Your task to perform on an android device: Open Youtube and go to "Your channel" Image 0: 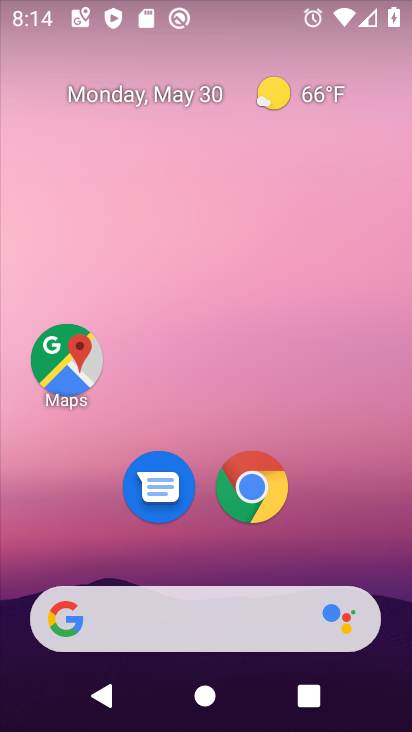
Step 0: press home button
Your task to perform on an android device: Open Youtube and go to "Your channel" Image 1: 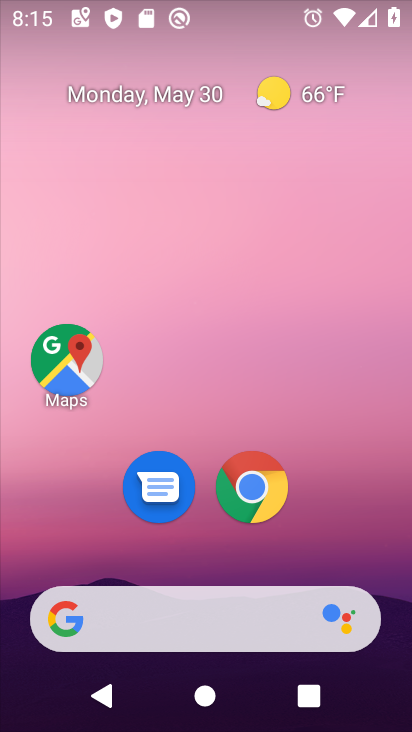
Step 1: drag from (352, 513) to (344, 103)
Your task to perform on an android device: Open Youtube and go to "Your channel" Image 2: 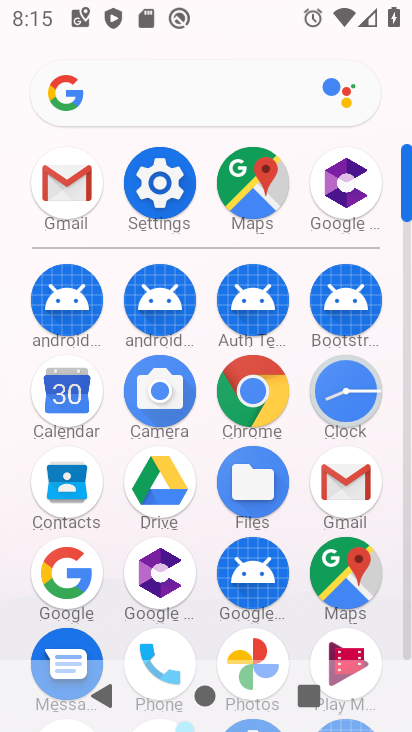
Step 2: drag from (382, 618) to (339, 184)
Your task to perform on an android device: Open Youtube and go to "Your channel" Image 3: 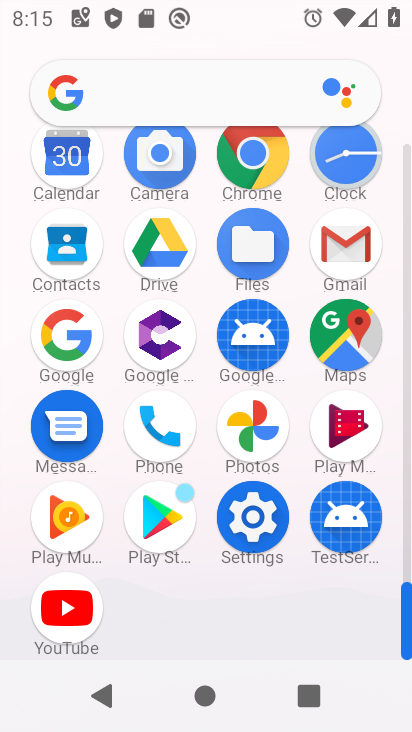
Step 3: click (49, 620)
Your task to perform on an android device: Open Youtube and go to "Your channel" Image 4: 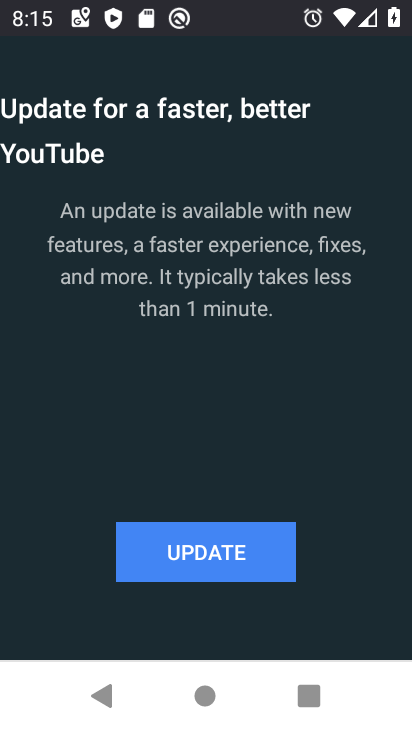
Step 4: click (170, 564)
Your task to perform on an android device: Open Youtube and go to "Your channel" Image 5: 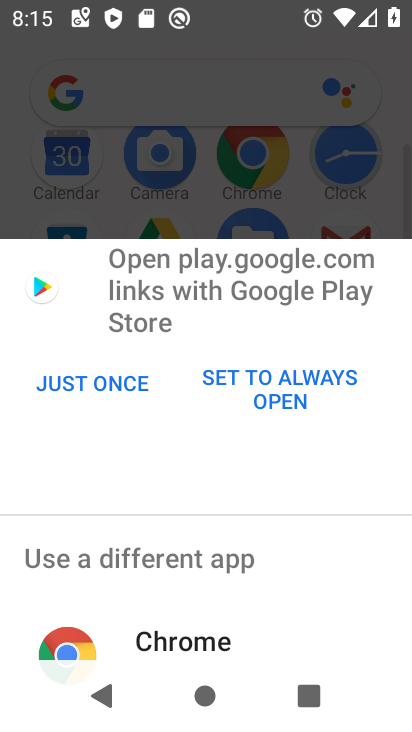
Step 5: drag from (342, 627) to (344, 280)
Your task to perform on an android device: Open Youtube and go to "Your channel" Image 6: 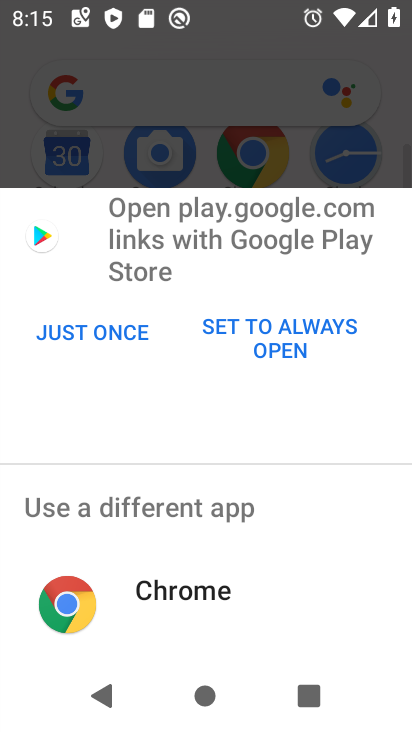
Step 6: click (103, 338)
Your task to perform on an android device: Open Youtube and go to "Your channel" Image 7: 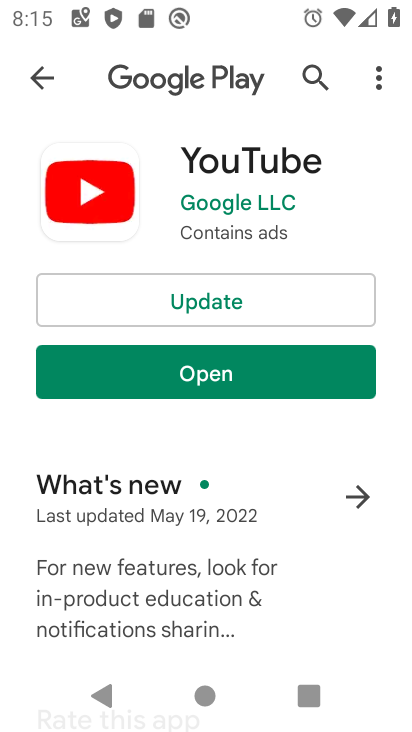
Step 7: click (122, 276)
Your task to perform on an android device: Open Youtube and go to "Your channel" Image 8: 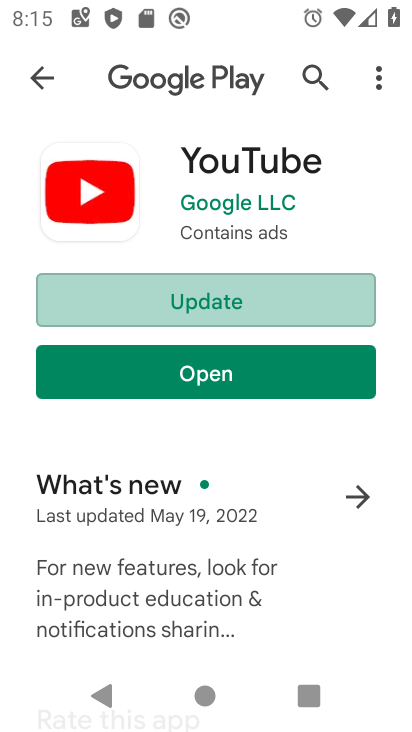
Step 8: click (127, 290)
Your task to perform on an android device: Open Youtube and go to "Your channel" Image 9: 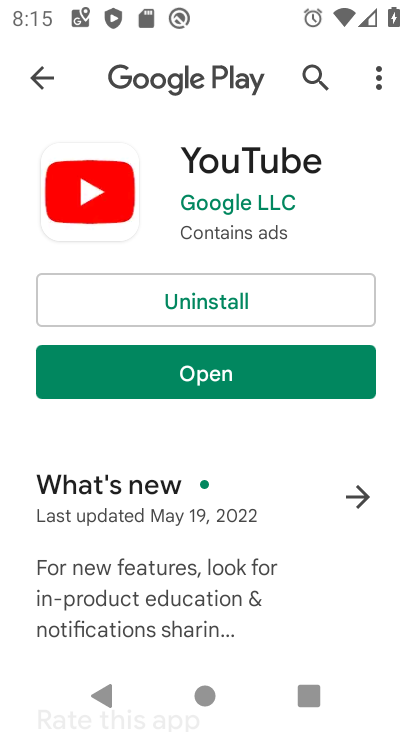
Step 9: click (87, 391)
Your task to perform on an android device: Open Youtube and go to "Your channel" Image 10: 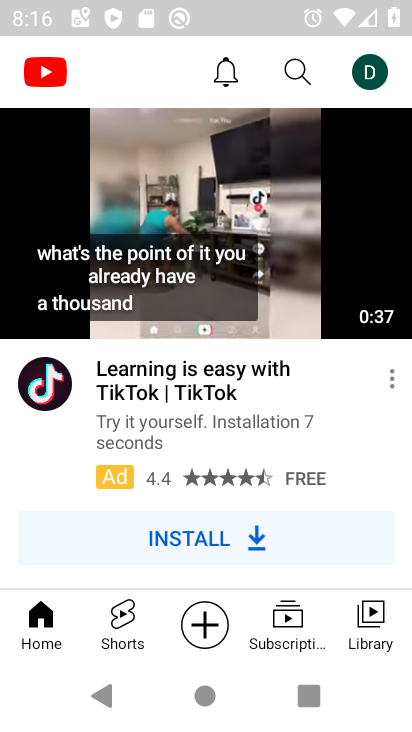
Step 10: click (381, 76)
Your task to perform on an android device: Open Youtube and go to "Your channel" Image 11: 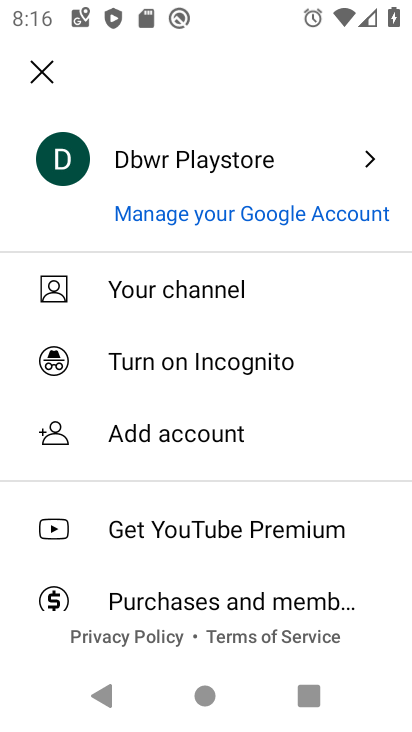
Step 11: click (177, 294)
Your task to perform on an android device: Open Youtube and go to "Your channel" Image 12: 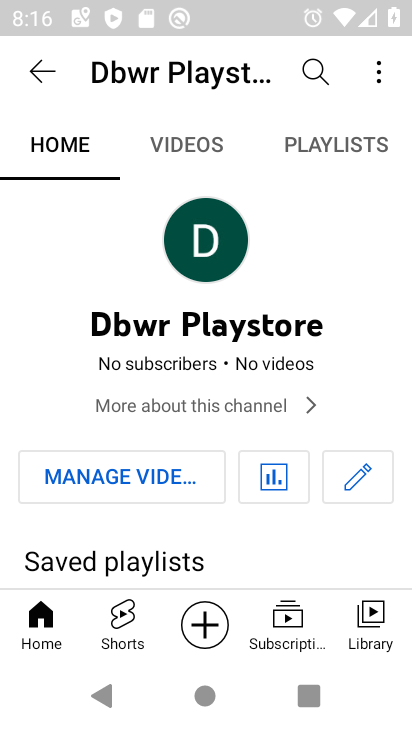
Step 12: task complete